Your task to perform on an android device: Open calendar and show me the first week of next month Image 0: 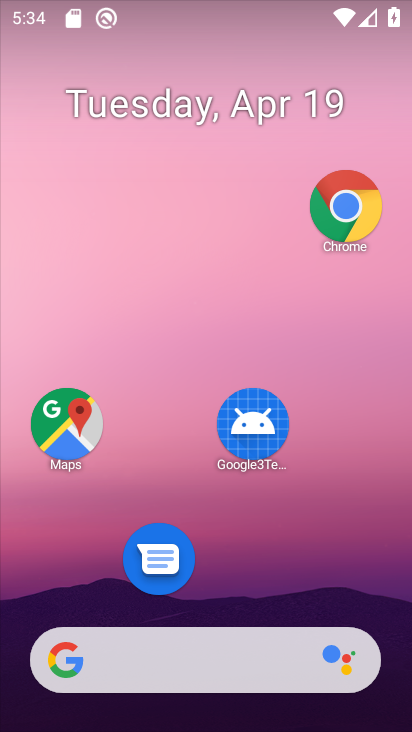
Step 0: drag from (216, 672) to (330, 46)
Your task to perform on an android device: Open calendar and show me the first week of next month Image 1: 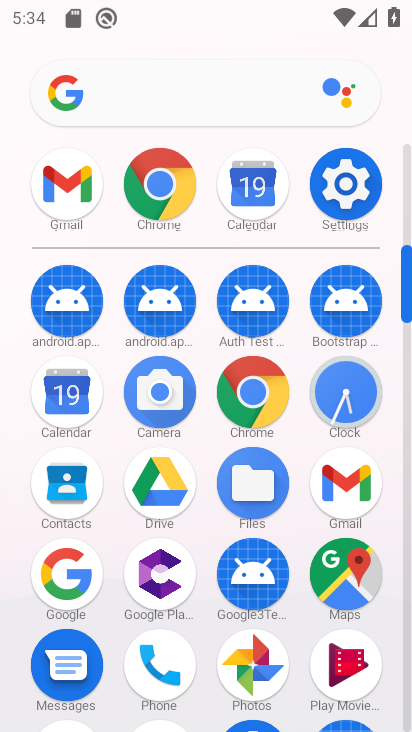
Step 1: click (60, 414)
Your task to perform on an android device: Open calendar and show me the first week of next month Image 2: 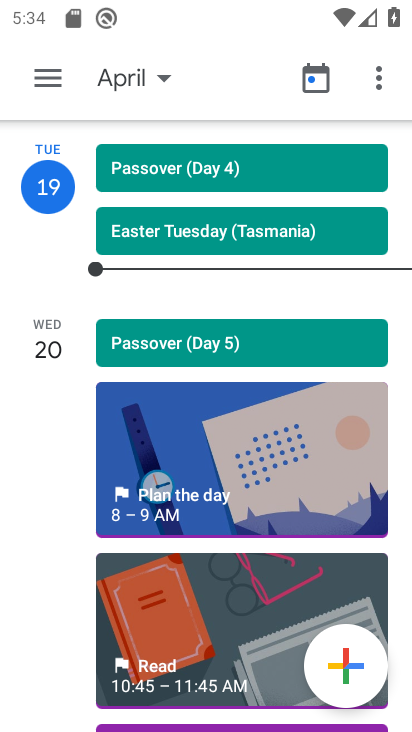
Step 2: click (169, 77)
Your task to perform on an android device: Open calendar and show me the first week of next month Image 3: 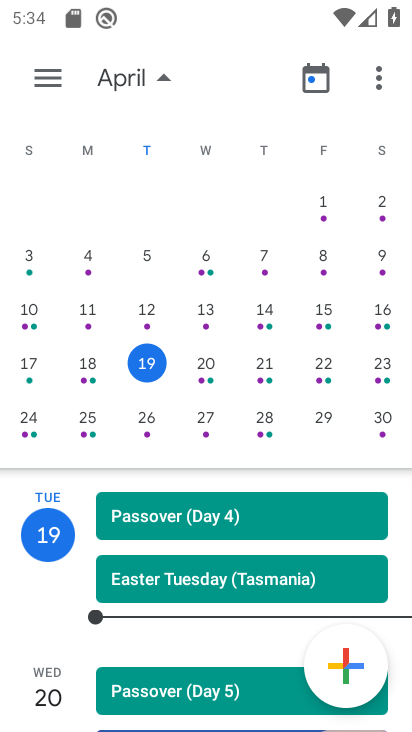
Step 3: drag from (356, 335) to (101, 255)
Your task to perform on an android device: Open calendar and show me the first week of next month Image 4: 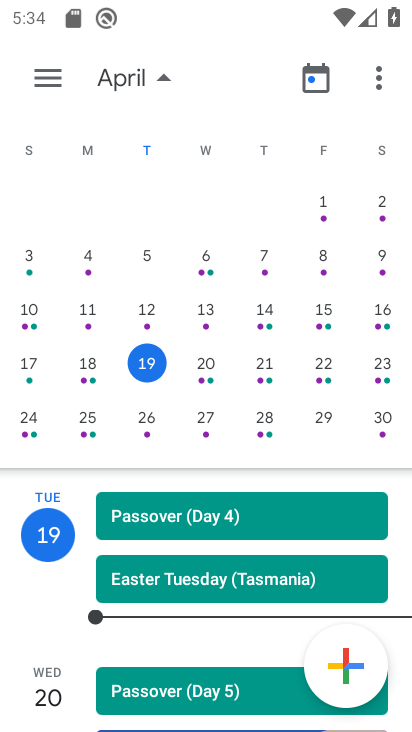
Step 4: drag from (380, 419) to (0, 368)
Your task to perform on an android device: Open calendar and show me the first week of next month Image 5: 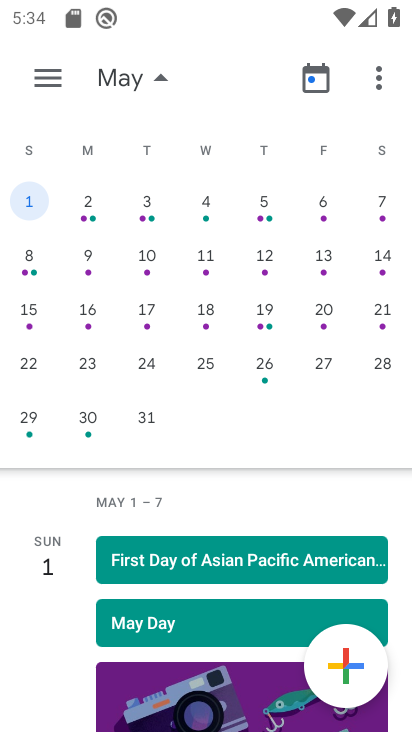
Step 5: click (151, 211)
Your task to perform on an android device: Open calendar and show me the first week of next month Image 6: 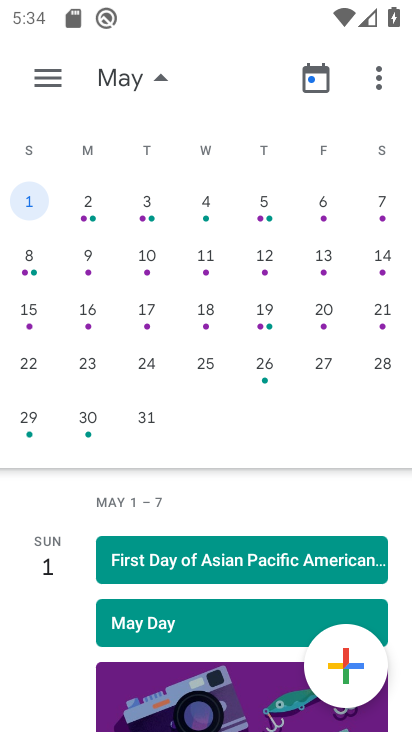
Step 6: task complete